Your task to perform on an android device: turn on javascript in the chrome app Image 0: 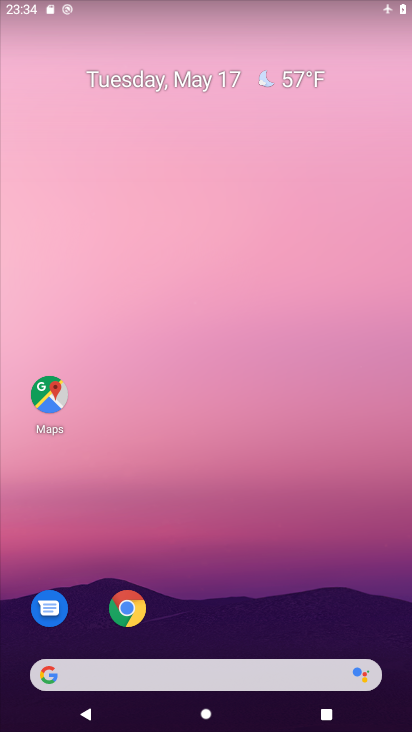
Step 0: click (132, 621)
Your task to perform on an android device: turn on javascript in the chrome app Image 1: 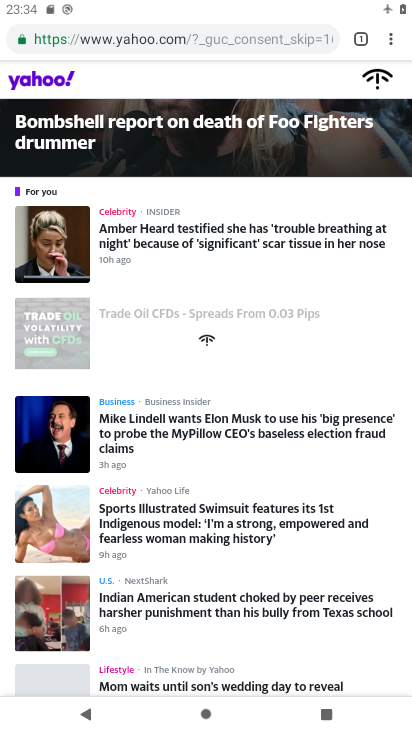
Step 1: click (390, 44)
Your task to perform on an android device: turn on javascript in the chrome app Image 2: 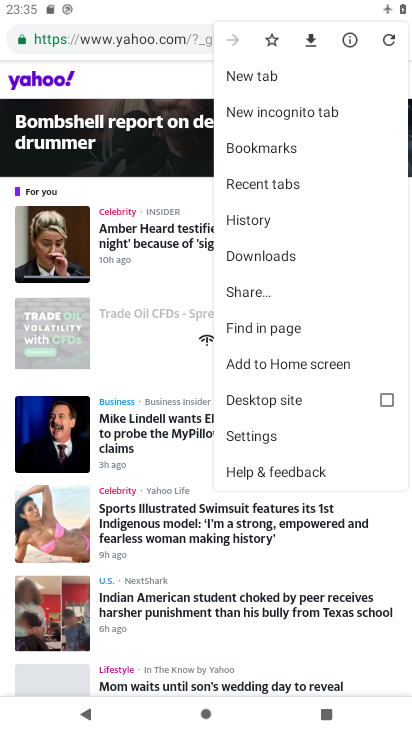
Step 2: click (265, 441)
Your task to perform on an android device: turn on javascript in the chrome app Image 3: 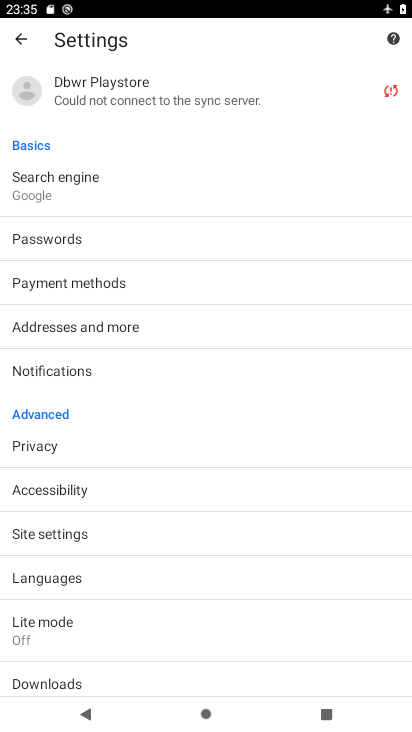
Step 3: click (66, 583)
Your task to perform on an android device: turn on javascript in the chrome app Image 4: 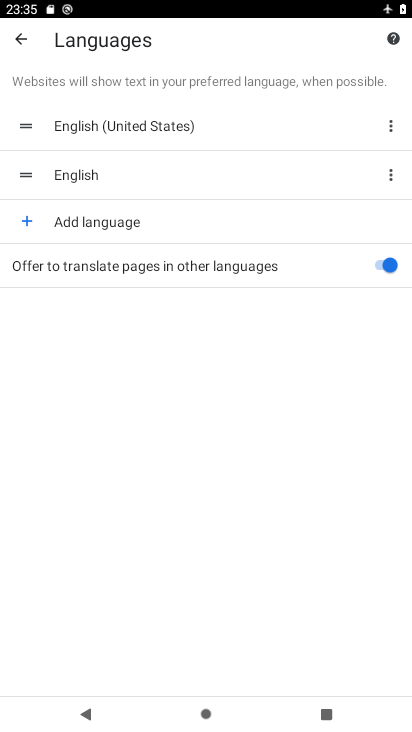
Step 4: click (32, 38)
Your task to perform on an android device: turn on javascript in the chrome app Image 5: 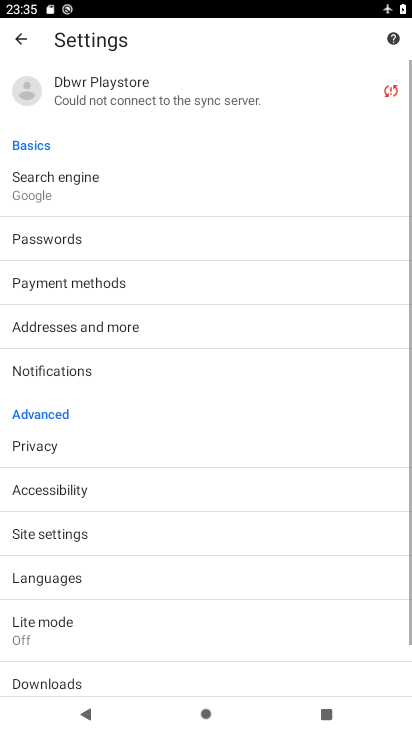
Step 5: click (67, 541)
Your task to perform on an android device: turn on javascript in the chrome app Image 6: 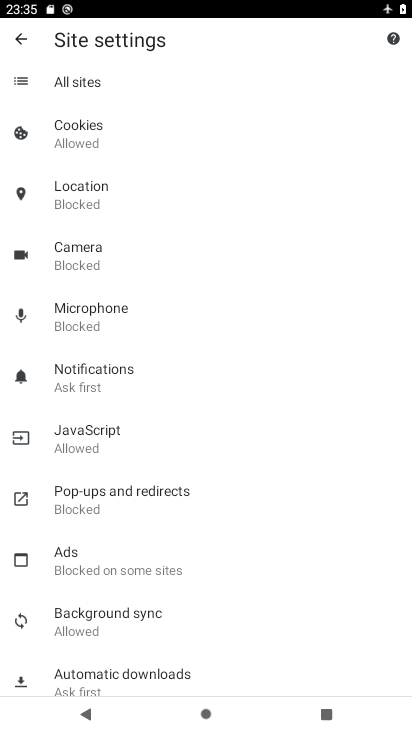
Step 6: click (87, 441)
Your task to perform on an android device: turn on javascript in the chrome app Image 7: 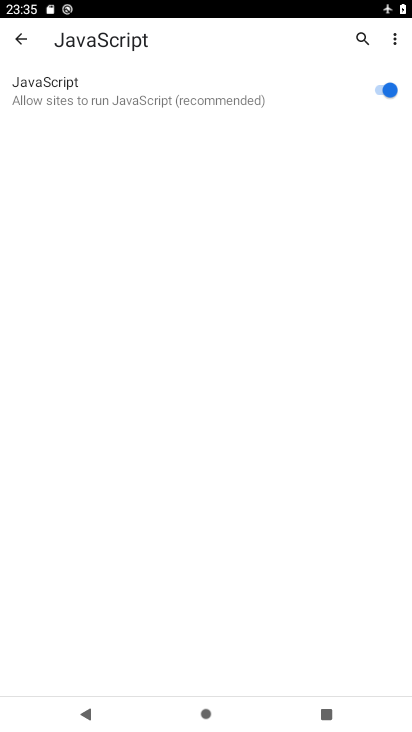
Step 7: task complete